Your task to perform on an android device: Clear the shopping cart on costco.com. Search for jbl charge 4 on costco.com, select the first entry, add it to the cart, then select checkout. Image 0: 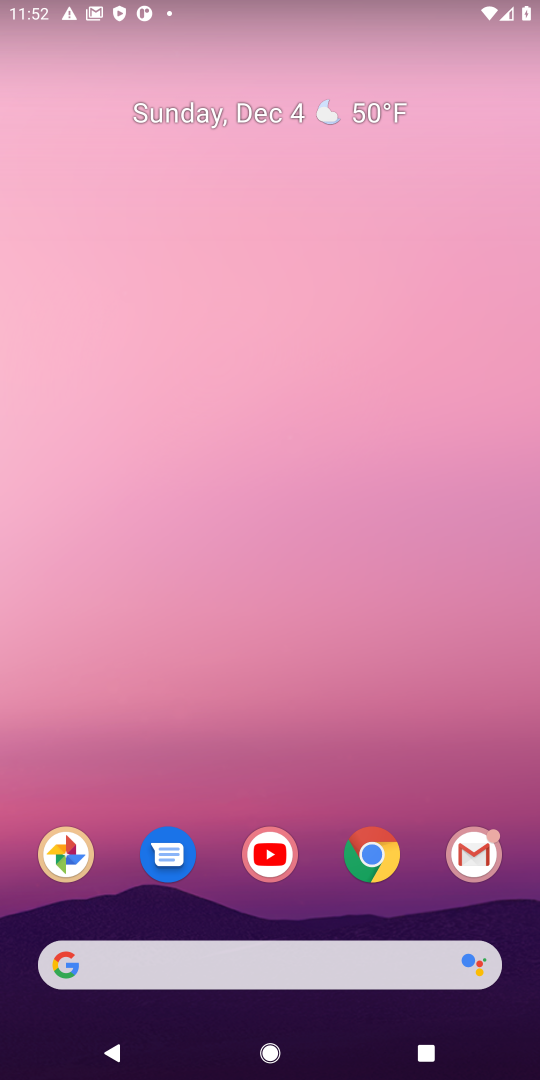
Step 0: click (364, 964)
Your task to perform on an android device: Clear the shopping cart on costco.com. Search for jbl charge 4 on costco.com, select the first entry, add it to the cart, then select checkout. Image 1: 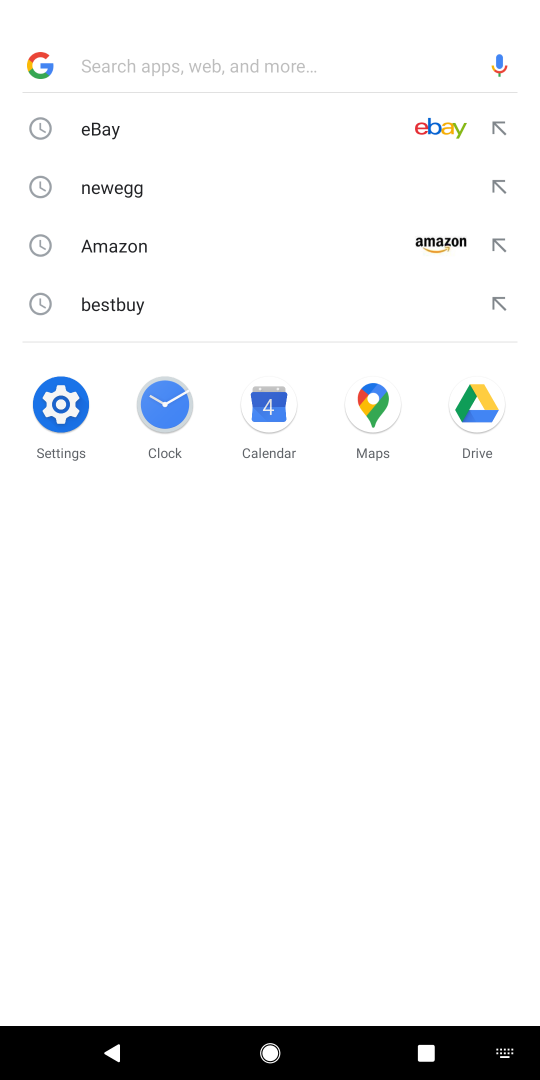
Step 1: type "costco.com"
Your task to perform on an android device: Clear the shopping cart on costco.com. Search for jbl charge 4 on costco.com, select the first entry, add it to the cart, then select checkout. Image 2: 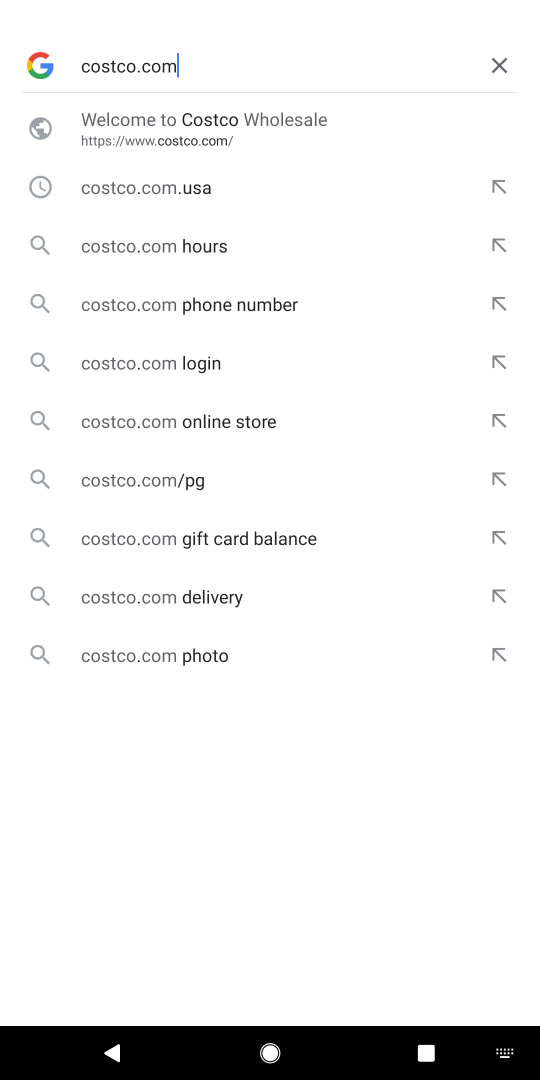
Step 2: click (265, 134)
Your task to perform on an android device: Clear the shopping cart on costco.com. Search for jbl charge 4 on costco.com, select the first entry, add it to the cart, then select checkout. Image 3: 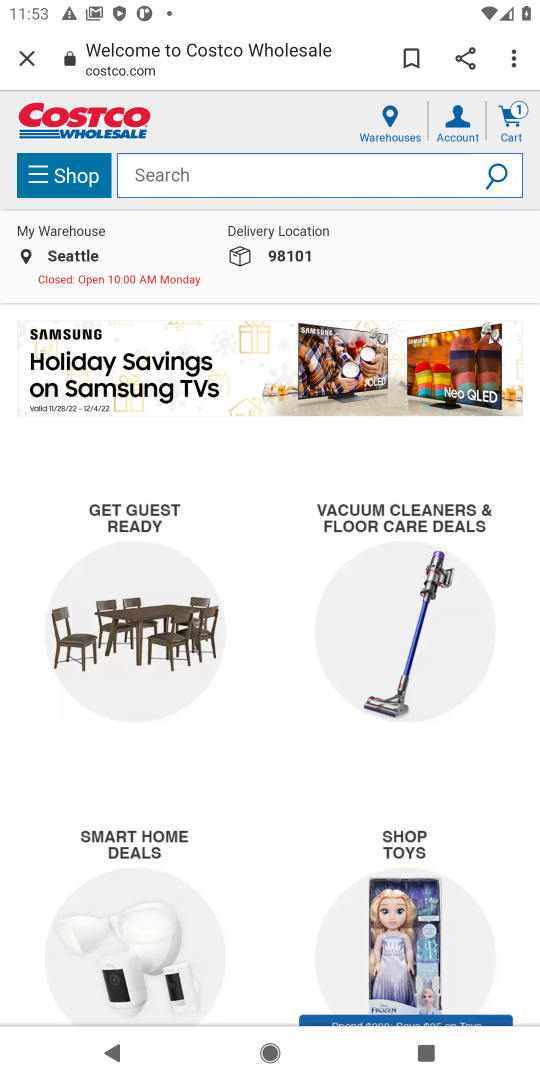
Step 3: click (287, 167)
Your task to perform on an android device: Clear the shopping cart on costco.com. Search for jbl charge 4 on costco.com, select the first entry, add it to the cart, then select checkout. Image 4: 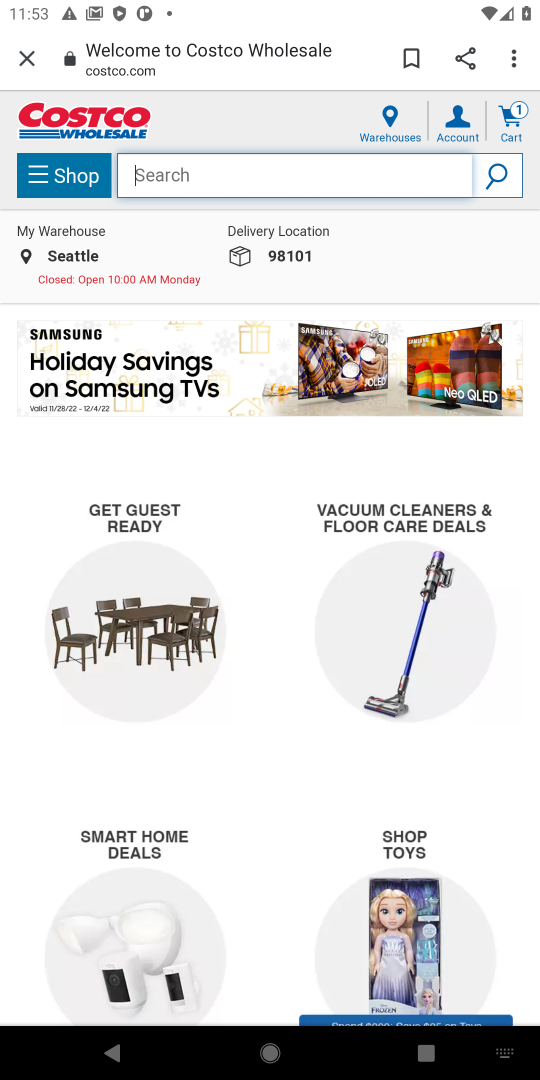
Step 4: type "jbl charge 4"
Your task to perform on an android device: Clear the shopping cart on costco.com. Search for jbl charge 4 on costco.com, select the first entry, add it to the cart, then select checkout. Image 5: 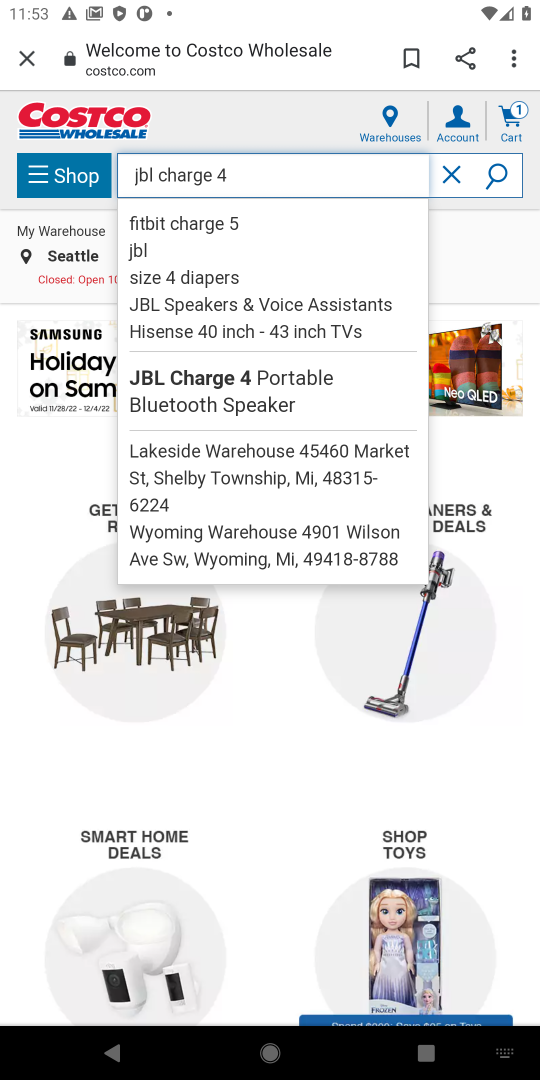
Step 5: click (491, 187)
Your task to perform on an android device: Clear the shopping cart on costco.com. Search for jbl charge 4 on costco.com, select the first entry, add it to the cart, then select checkout. Image 6: 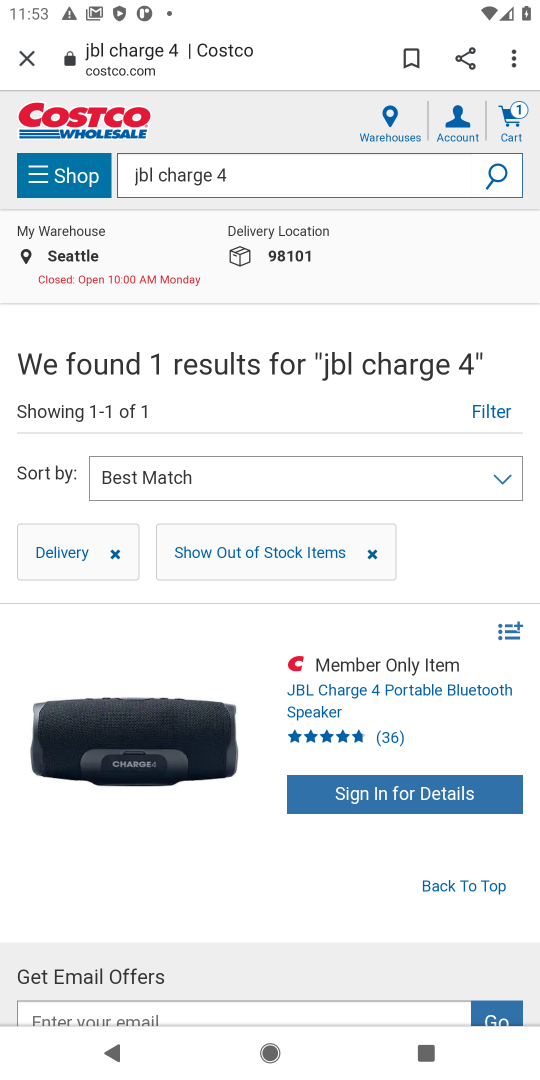
Step 6: task complete